Your task to perform on an android device: open app "Venmo" Image 0: 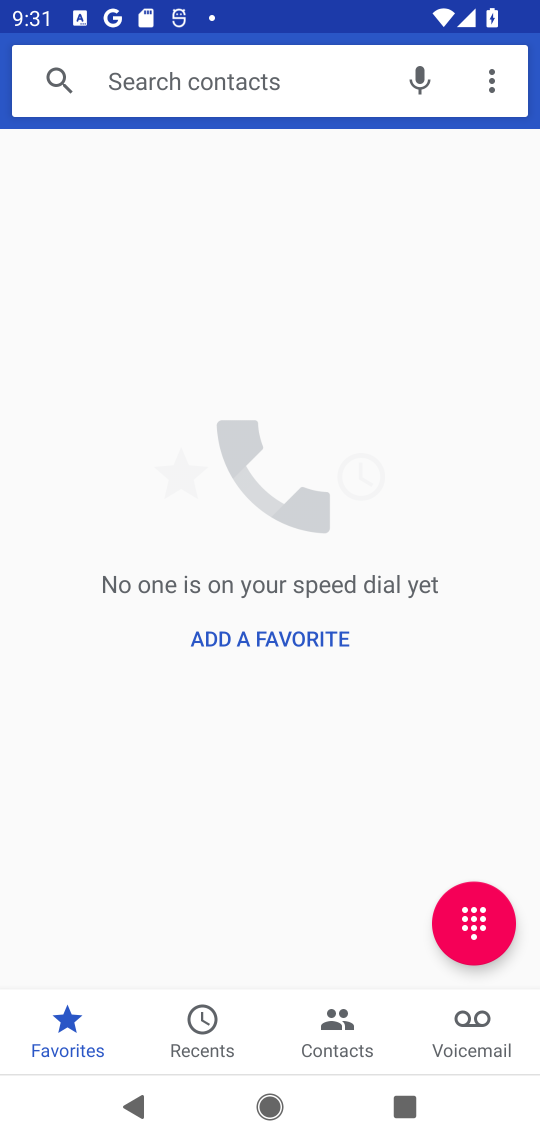
Step 0: press home button
Your task to perform on an android device: open app "Venmo" Image 1: 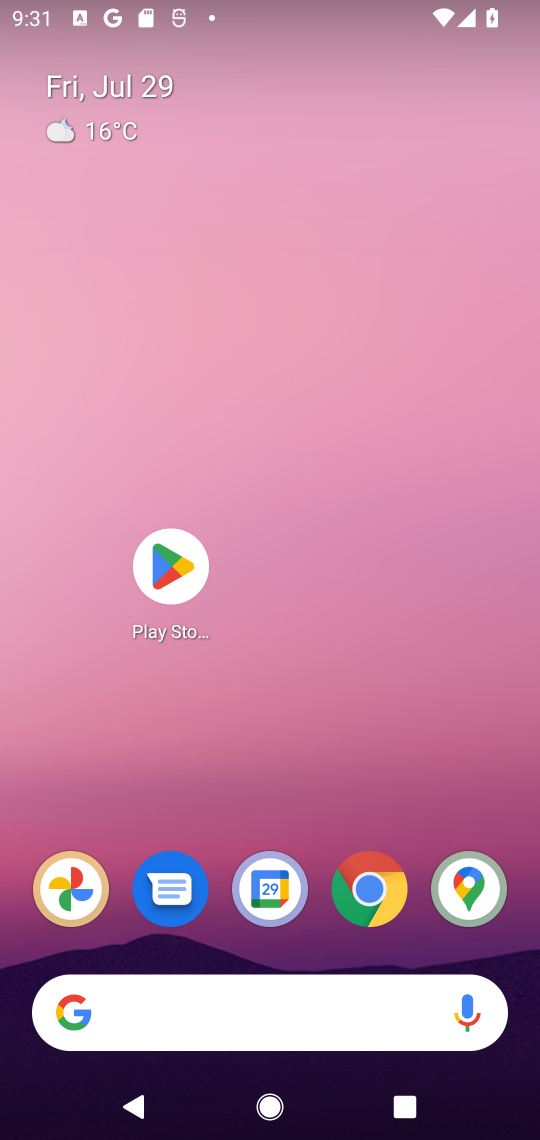
Step 1: click (174, 559)
Your task to perform on an android device: open app "Venmo" Image 2: 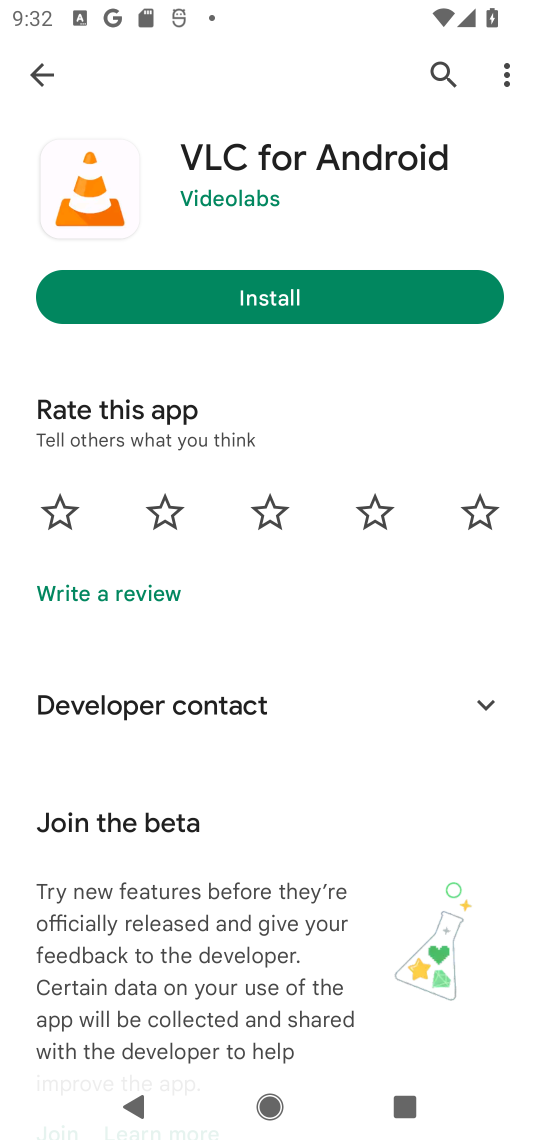
Step 2: click (435, 65)
Your task to perform on an android device: open app "Venmo" Image 3: 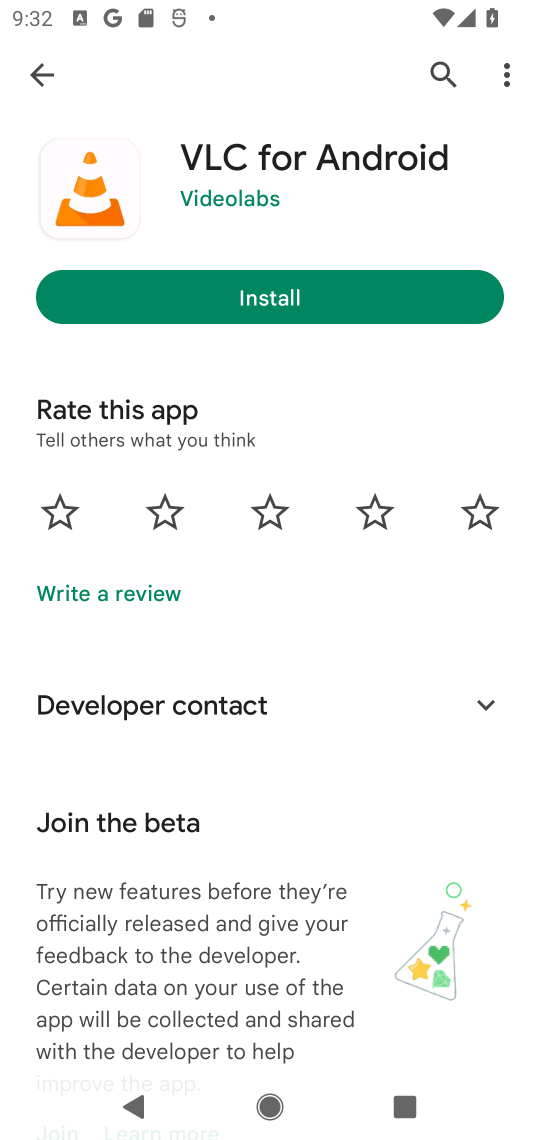
Step 3: click (444, 68)
Your task to perform on an android device: open app "Venmo" Image 4: 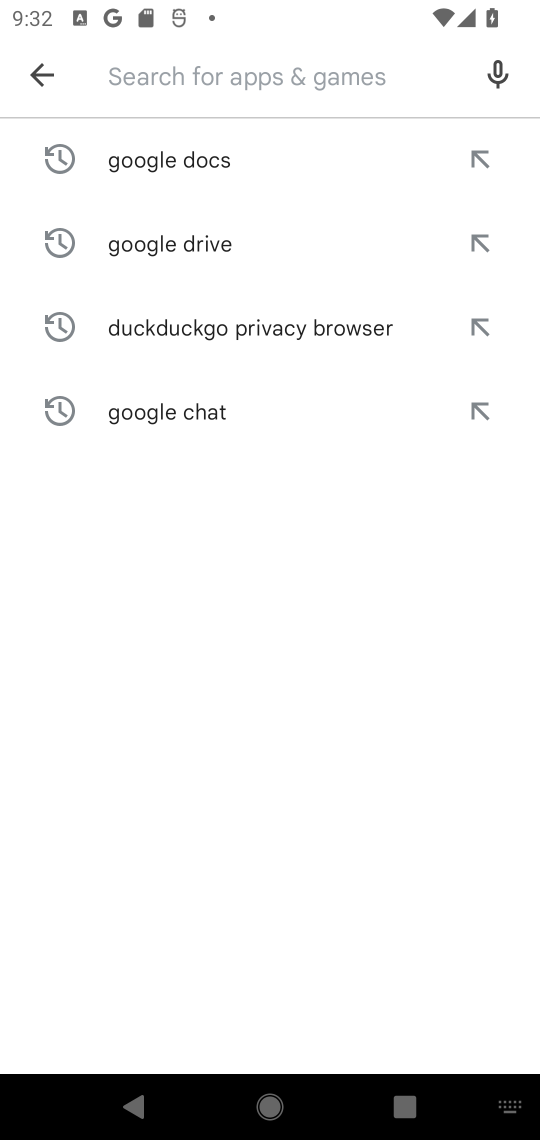
Step 4: type "Venmo"
Your task to perform on an android device: open app "Venmo" Image 5: 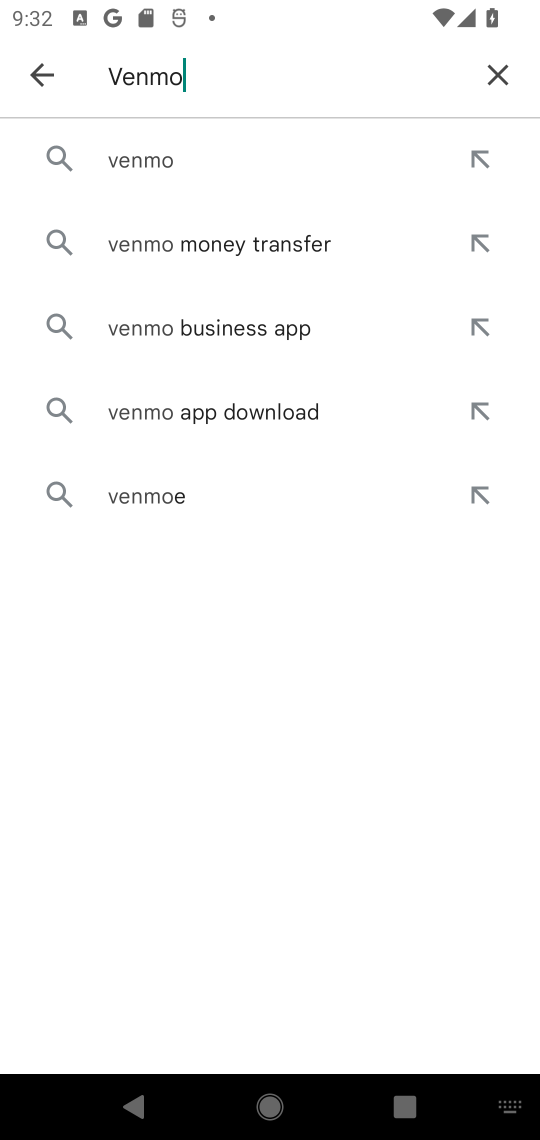
Step 5: click (116, 154)
Your task to perform on an android device: open app "Venmo" Image 6: 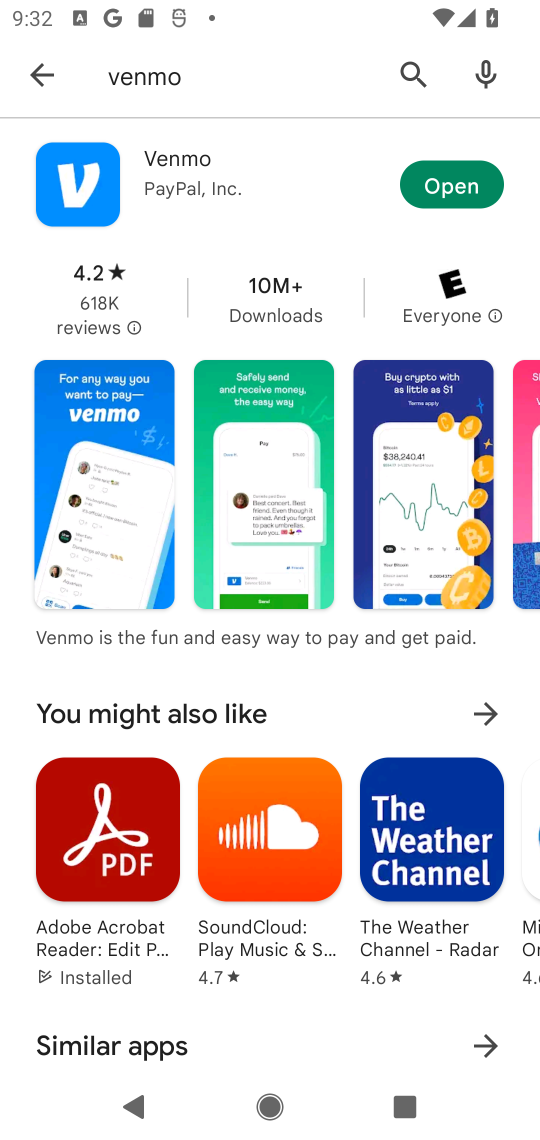
Step 6: click (440, 188)
Your task to perform on an android device: open app "Venmo" Image 7: 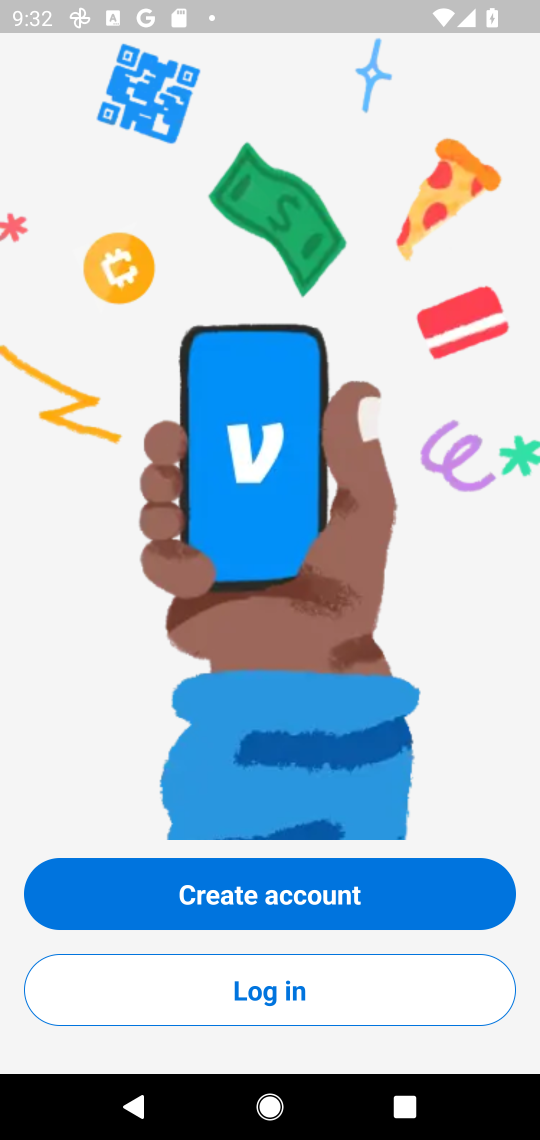
Step 7: task complete